Your task to perform on an android device: Go to Yahoo.com Image 0: 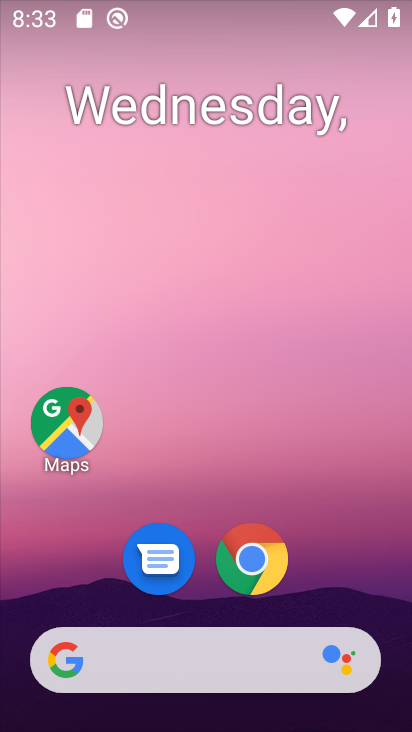
Step 0: drag from (370, 406) to (374, 96)
Your task to perform on an android device: Go to Yahoo.com Image 1: 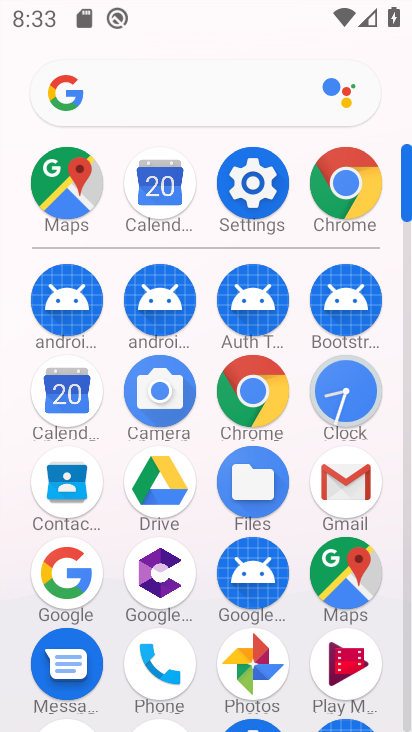
Step 1: click (247, 413)
Your task to perform on an android device: Go to Yahoo.com Image 2: 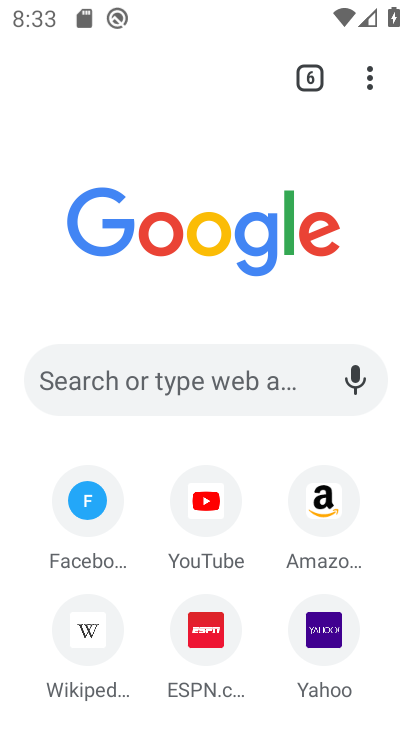
Step 2: click (164, 395)
Your task to perform on an android device: Go to Yahoo.com Image 3: 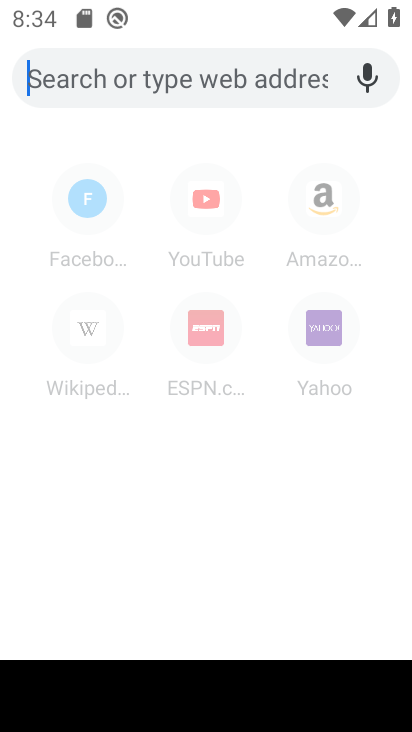
Step 3: click (332, 335)
Your task to perform on an android device: Go to Yahoo.com Image 4: 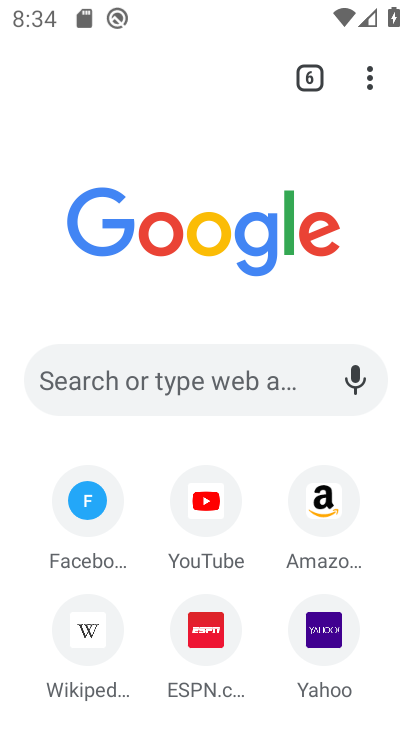
Step 4: click (320, 663)
Your task to perform on an android device: Go to Yahoo.com Image 5: 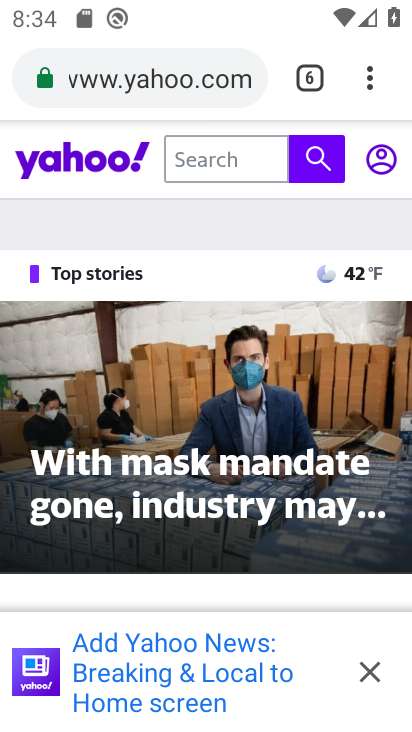
Step 5: task complete